Your task to perform on an android device: check storage Image 0: 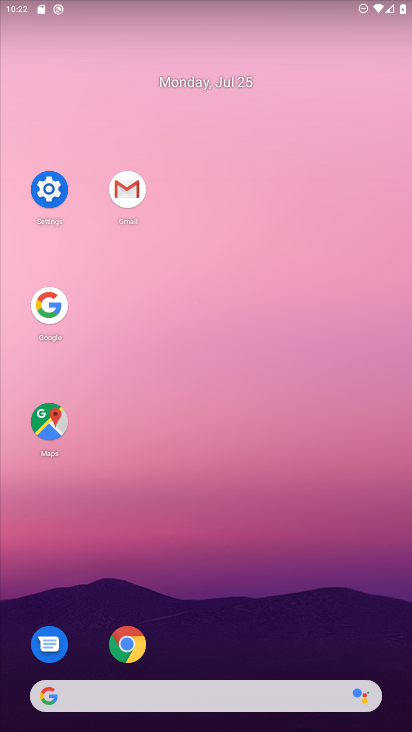
Step 0: click (47, 179)
Your task to perform on an android device: check storage Image 1: 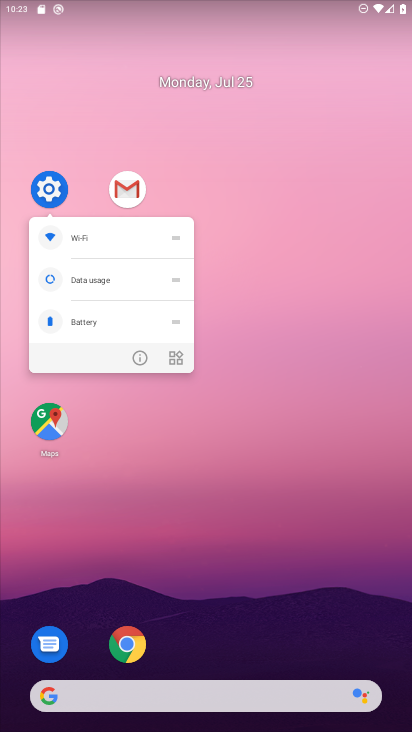
Step 1: click (53, 178)
Your task to perform on an android device: check storage Image 2: 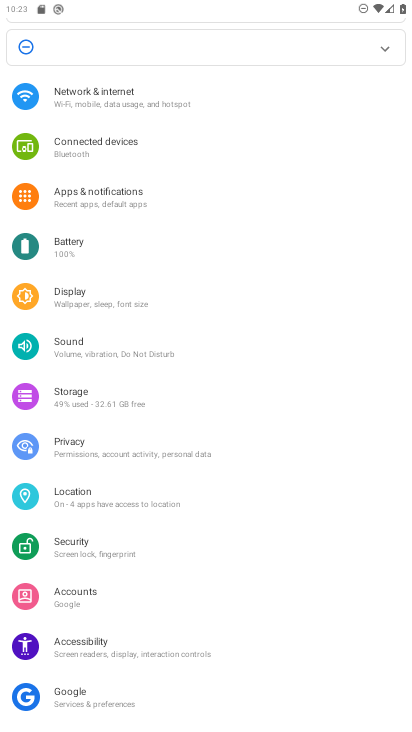
Step 2: click (136, 389)
Your task to perform on an android device: check storage Image 3: 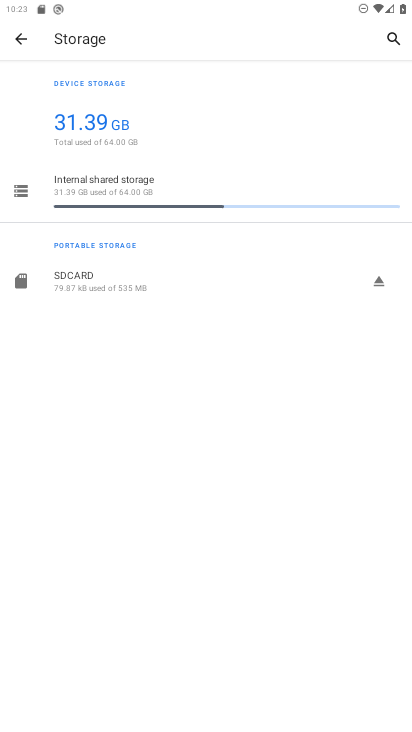
Step 3: task complete